Your task to perform on an android device: Open accessibility settings Image 0: 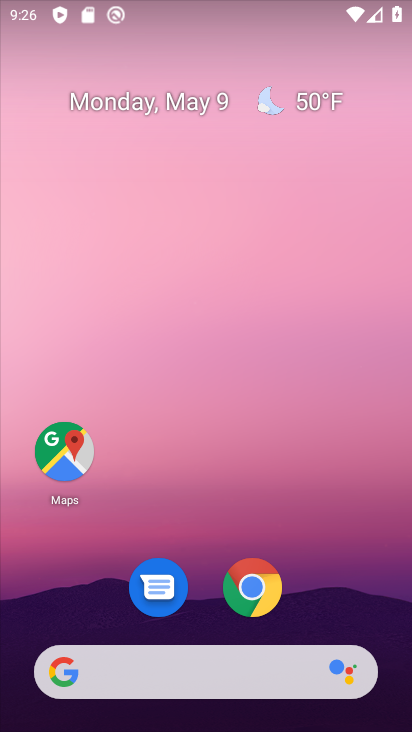
Step 0: drag from (199, 706) to (199, 209)
Your task to perform on an android device: Open accessibility settings Image 1: 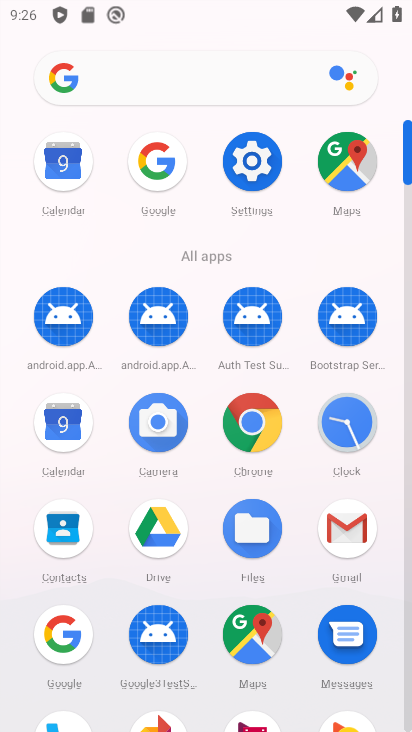
Step 1: click (252, 150)
Your task to perform on an android device: Open accessibility settings Image 2: 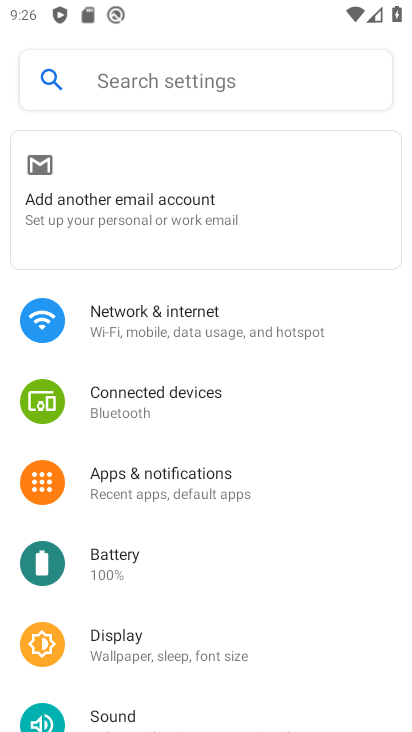
Step 2: drag from (287, 623) to (277, 197)
Your task to perform on an android device: Open accessibility settings Image 3: 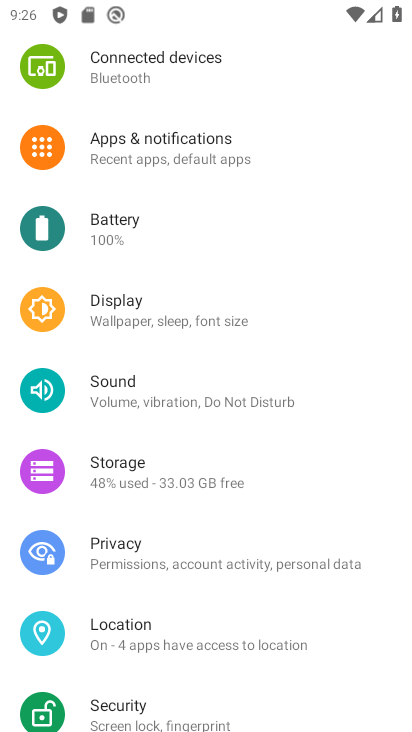
Step 3: drag from (212, 689) to (216, 264)
Your task to perform on an android device: Open accessibility settings Image 4: 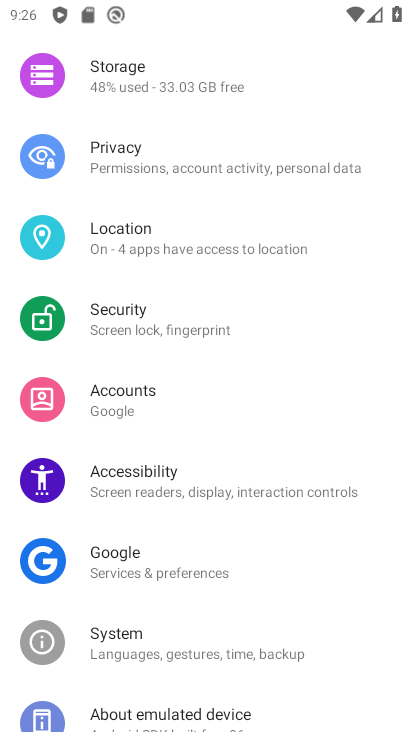
Step 4: click (124, 472)
Your task to perform on an android device: Open accessibility settings Image 5: 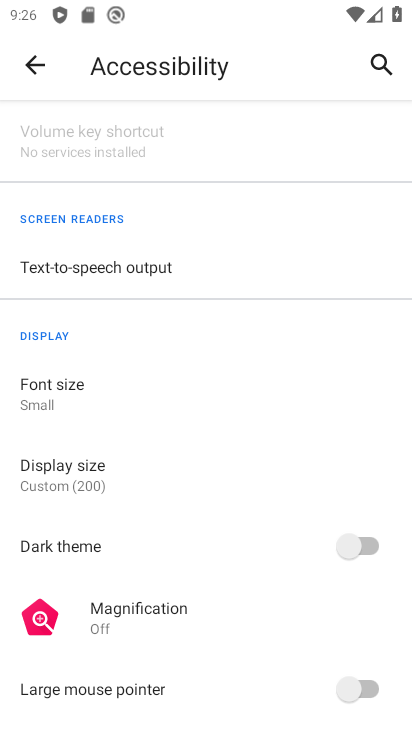
Step 5: task complete